Your task to perform on an android device: What is the recent news? Image 0: 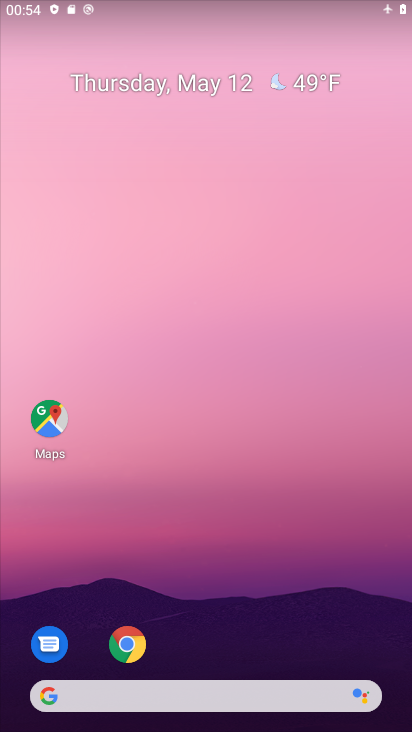
Step 0: drag from (18, 284) to (342, 423)
Your task to perform on an android device: What is the recent news? Image 1: 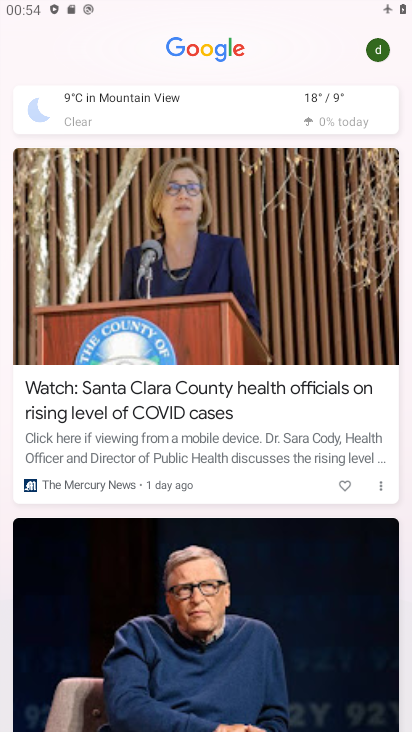
Step 1: task complete